Your task to perform on an android device: turn off data saver in the chrome app Image 0: 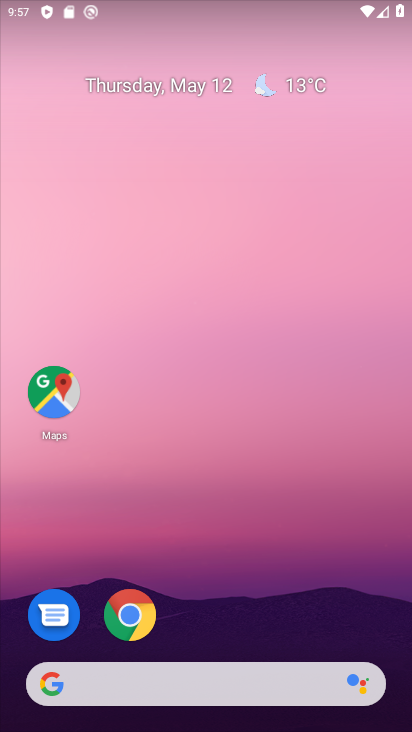
Step 0: drag from (303, 548) to (193, 5)
Your task to perform on an android device: turn off data saver in the chrome app Image 1: 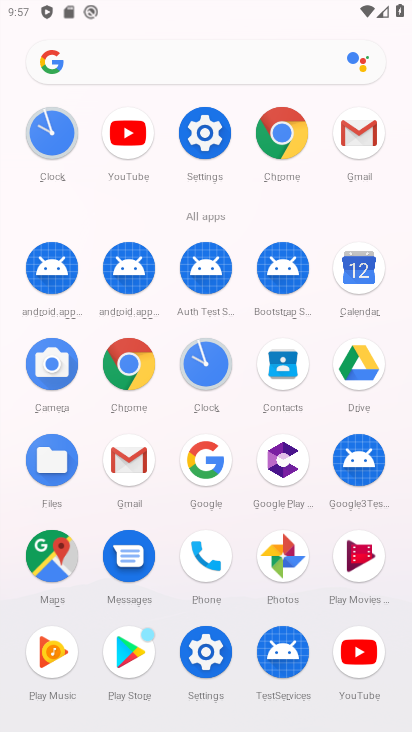
Step 1: click (259, 139)
Your task to perform on an android device: turn off data saver in the chrome app Image 2: 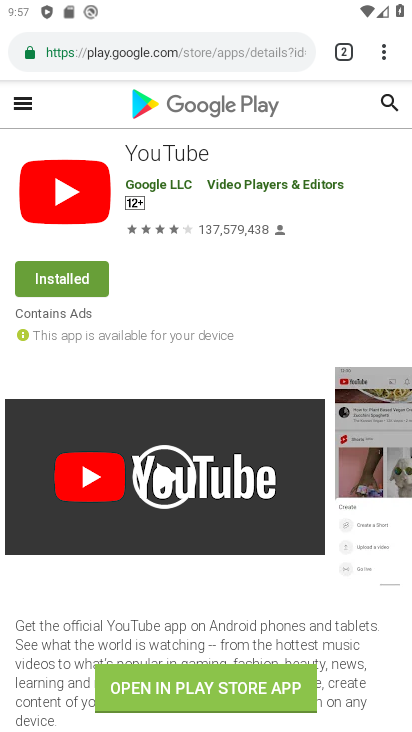
Step 2: press home button
Your task to perform on an android device: turn off data saver in the chrome app Image 3: 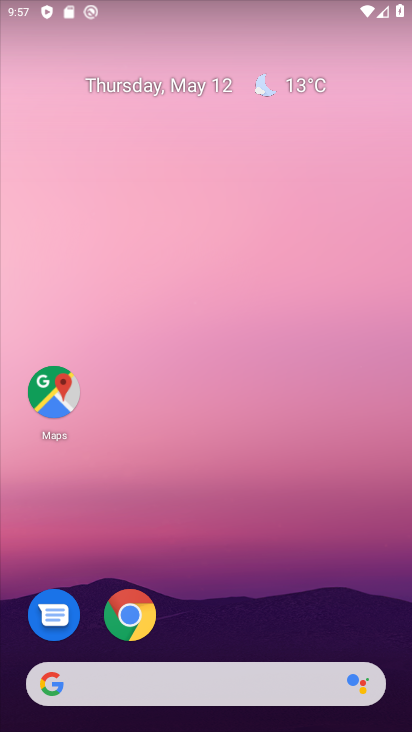
Step 3: drag from (329, 442) to (392, 76)
Your task to perform on an android device: turn off data saver in the chrome app Image 4: 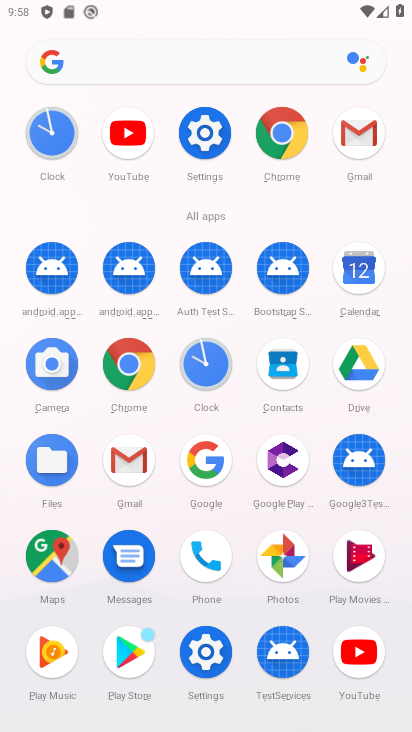
Step 4: click (261, 137)
Your task to perform on an android device: turn off data saver in the chrome app Image 5: 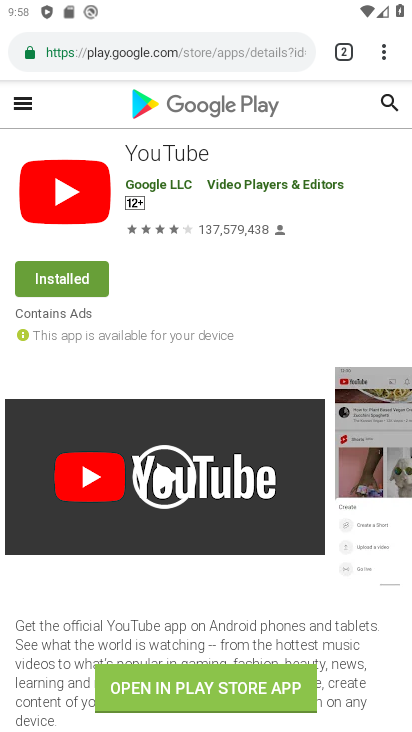
Step 5: drag from (390, 62) to (212, 581)
Your task to perform on an android device: turn off data saver in the chrome app Image 6: 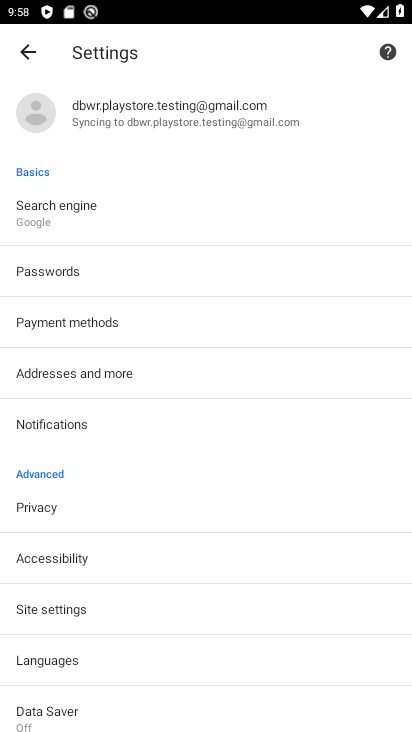
Step 6: drag from (185, 641) to (121, 276)
Your task to perform on an android device: turn off data saver in the chrome app Image 7: 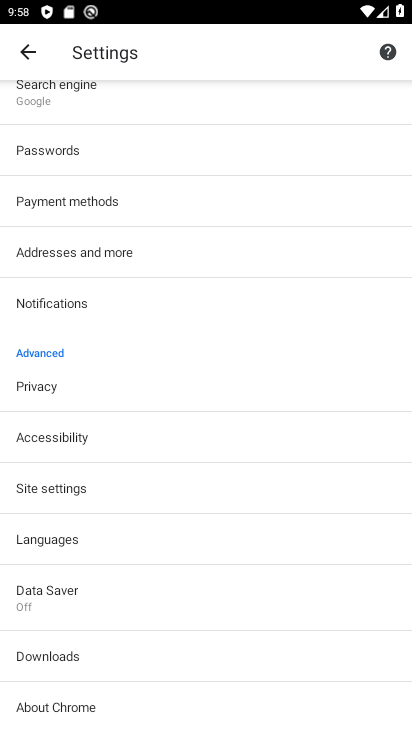
Step 7: click (138, 612)
Your task to perform on an android device: turn off data saver in the chrome app Image 8: 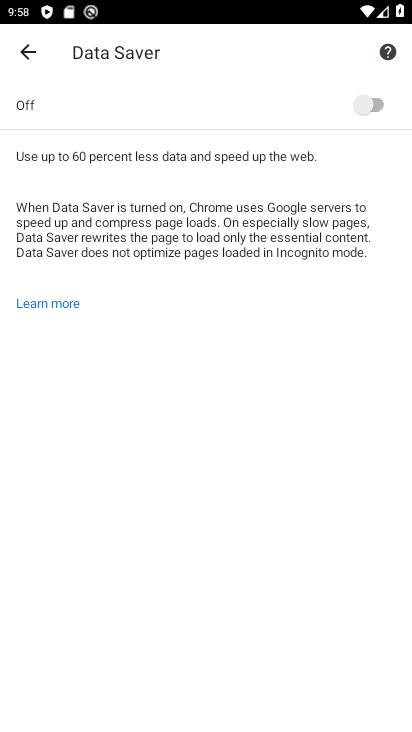
Step 8: task complete